Your task to perform on an android device: show emergency info Image 0: 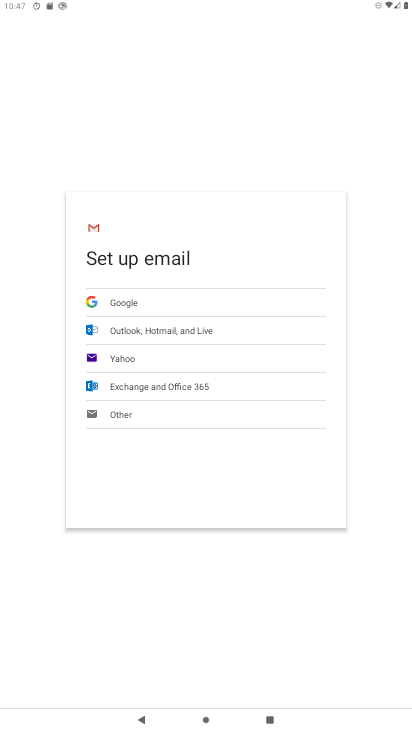
Step 0: drag from (289, 610) to (248, 216)
Your task to perform on an android device: show emergency info Image 1: 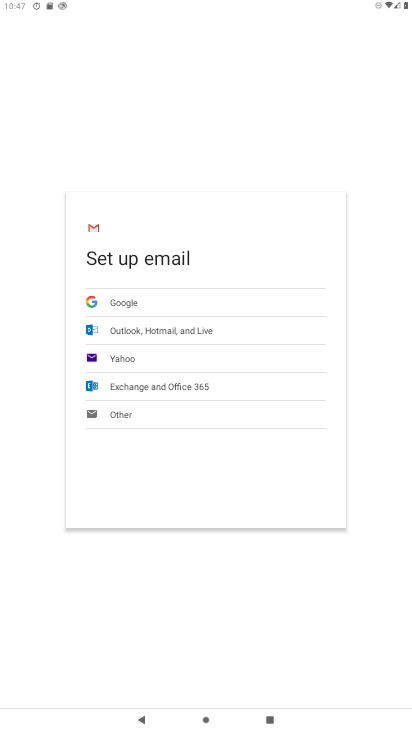
Step 1: press home button
Your task to perform on an android device: show emergency info Image 2: 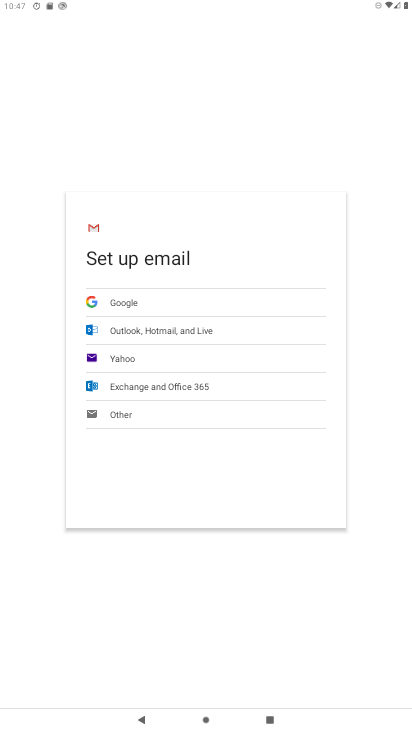
Step 2: press home button
Your task to perform on an android device: show emergency info Image 3: 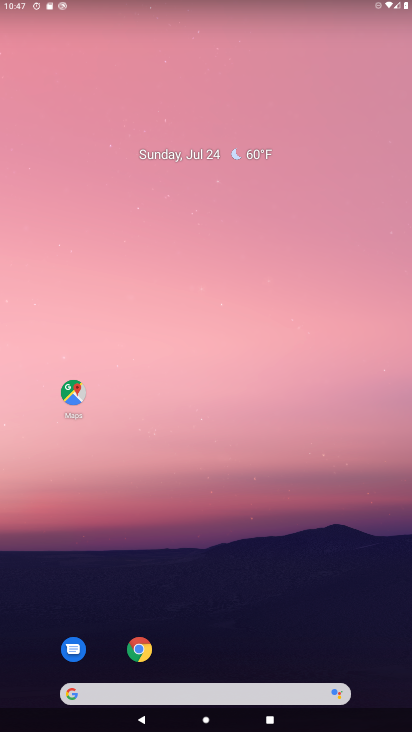
Step 3: drag from (356, 608) to (196, 28)
Your task to perform on an android device: show emergency info Image 4: 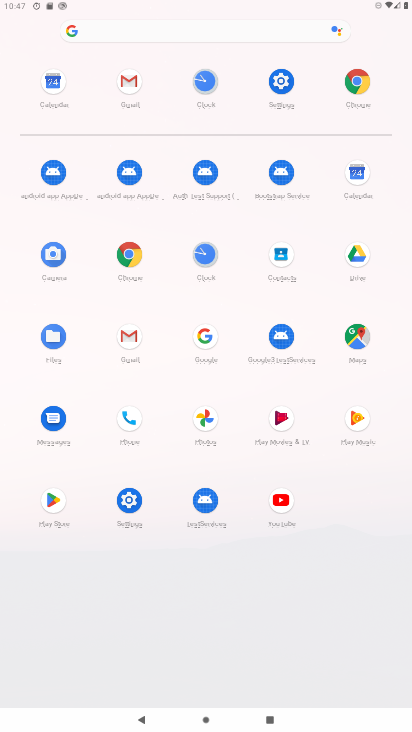
Step 4: click (277, 78)
Your task to perform on an android device: show emergency info Image 5: 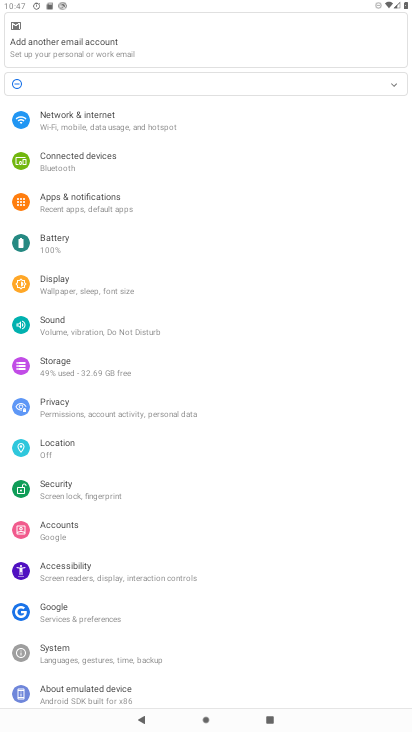
Step 5: drag from (99, 534) to (91, 298)
Your task to perform on an android device: show emergency info Image 6: 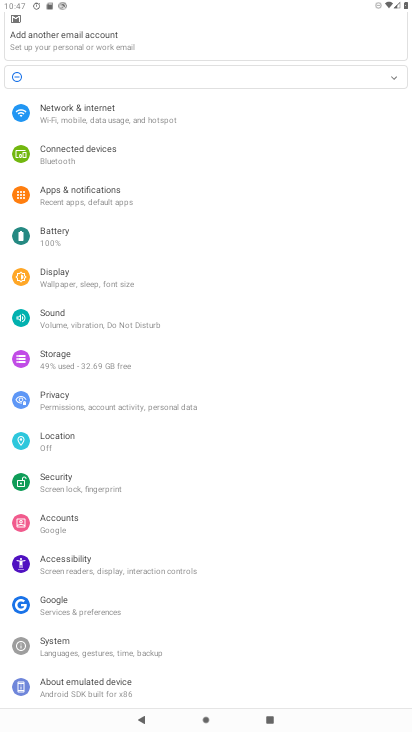
Step 6: click (75, 693)
Your task to perform on an android device: show emergency info Image 7: 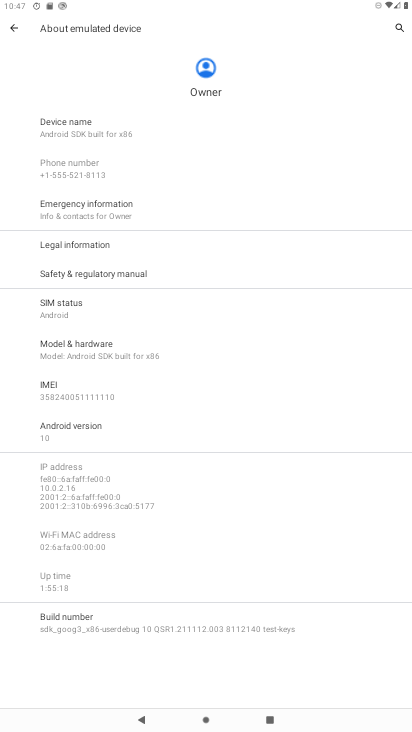
Step 7: click (119, 223)
Your task to perform on an android device: show emergency info Image 8: 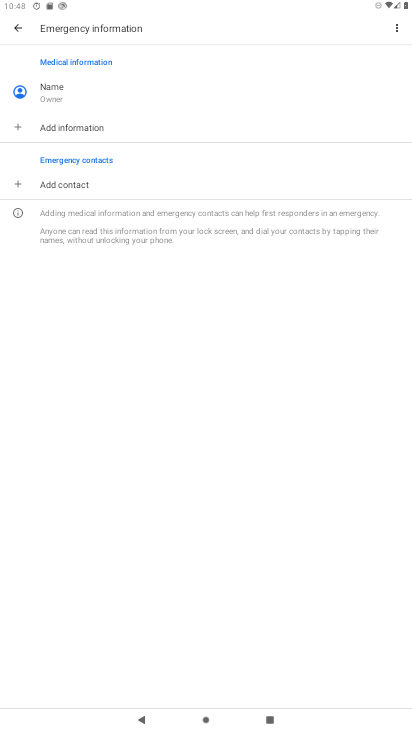
Step 8: task complete